Your task to perform on an android device: When is my next appointment? Image 0: 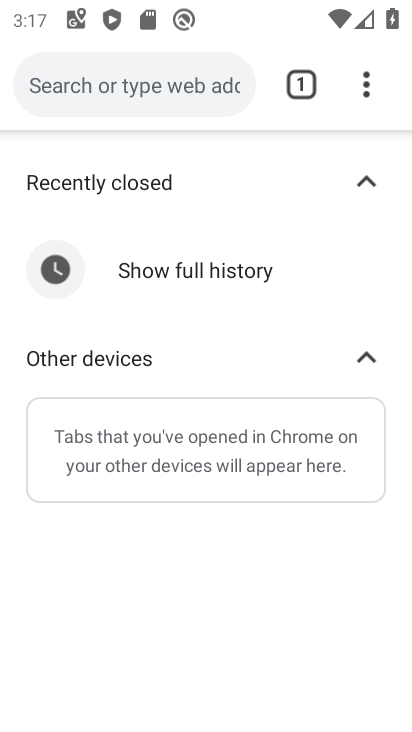
Step 0: press home button
Your task to perform on an android device: When is my next appointment? Image 1: 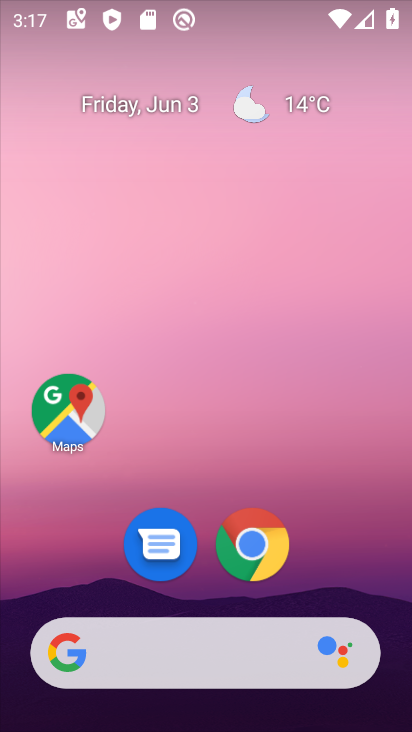
Step 1: drag from (374, 598) to (332, 84)
Your task to perform on an android device: When is my next appointment? Image 2: 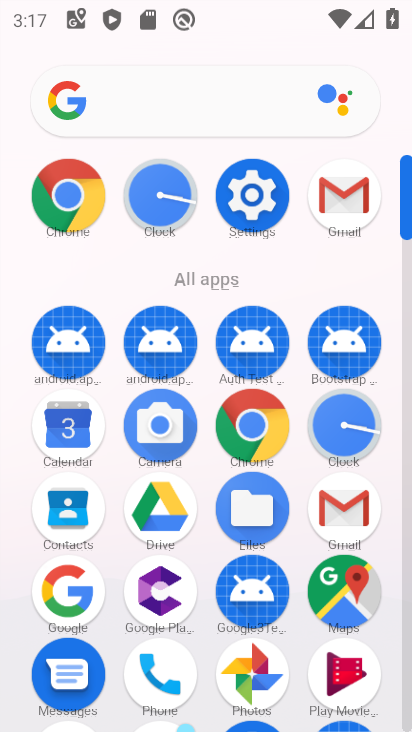
Step 2: click (67, 422)
Your task to perform on an android device: When is my next appointment? Image 3: 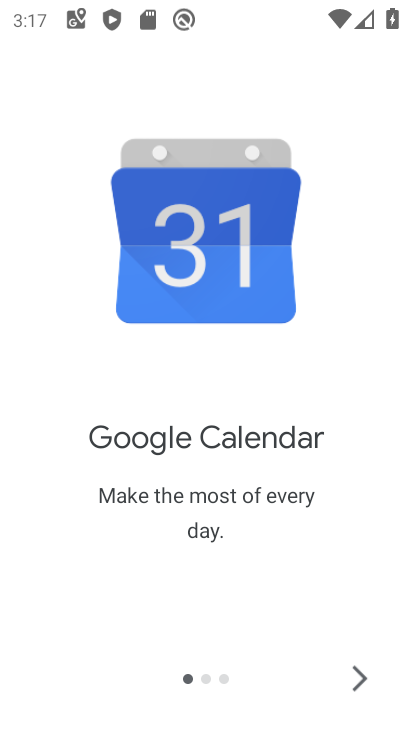
Step 3: click (358, 670)
Your task to perform on an android device: When is my next appointment? Image 4: 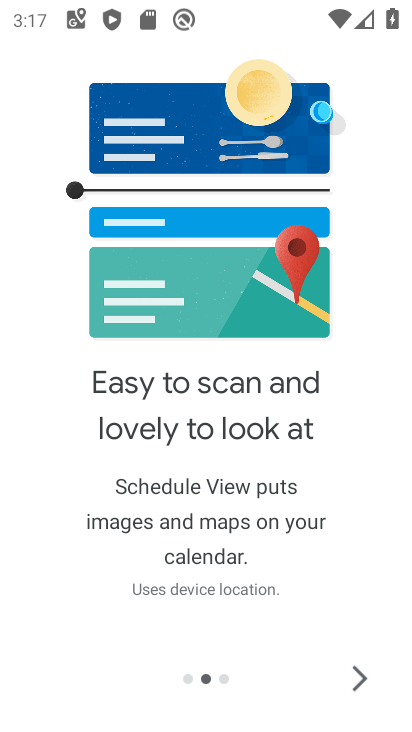
Step 4: click (358, 670)
Your task to perform on an android device: When is my next appointment? Image 5: 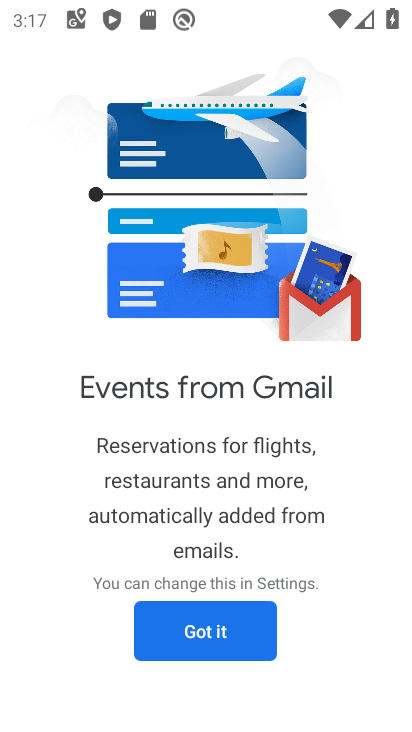
Step 5: click (191, 618)
Your task to perform on an android device: When is my next appointment? Image 6: 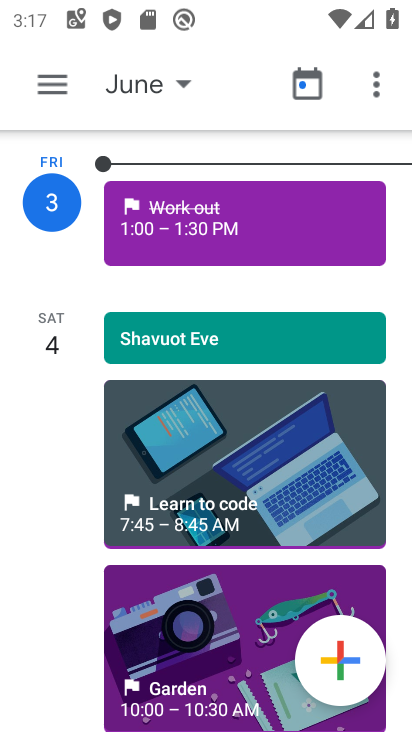
Step 6: click (75, 90)
Your task to perform on an android device: When is my next appointment? Image 7: 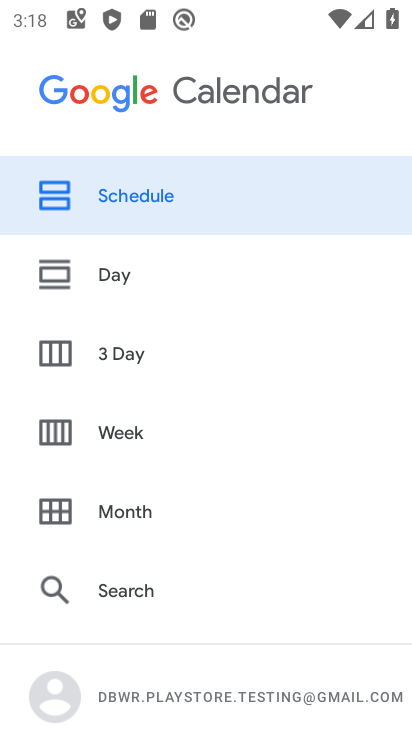
Step 7: click (165, 190)
Your task to perform on an android device: When is my next appointment? Image 8: 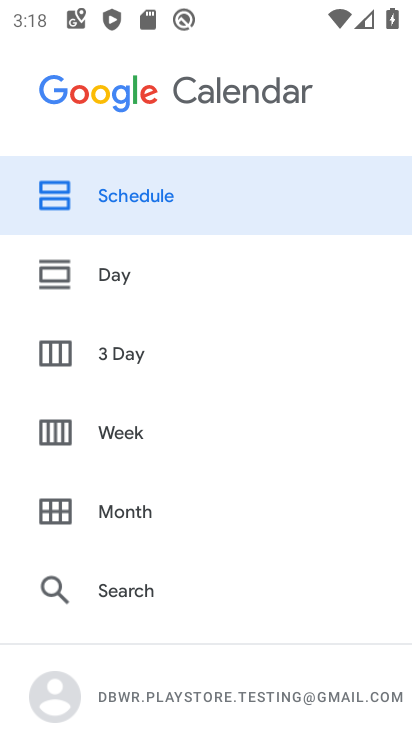
Step 8: click (135, 205)
Your task to perform on an android device: When is my next appointment? Image 9: 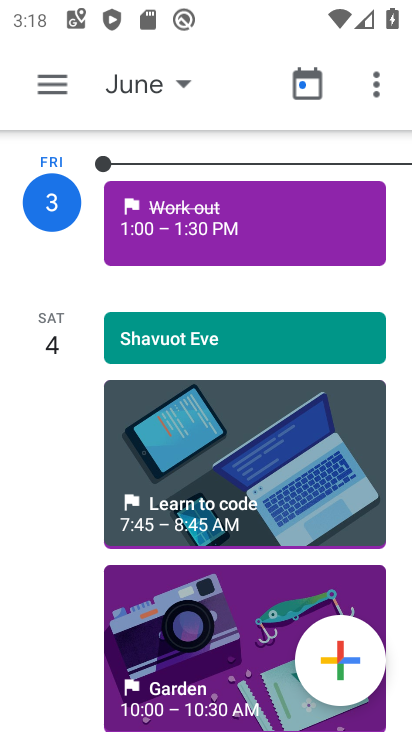
Step 9: task complete